Your task to perform on an android device: Open maps Image 0: 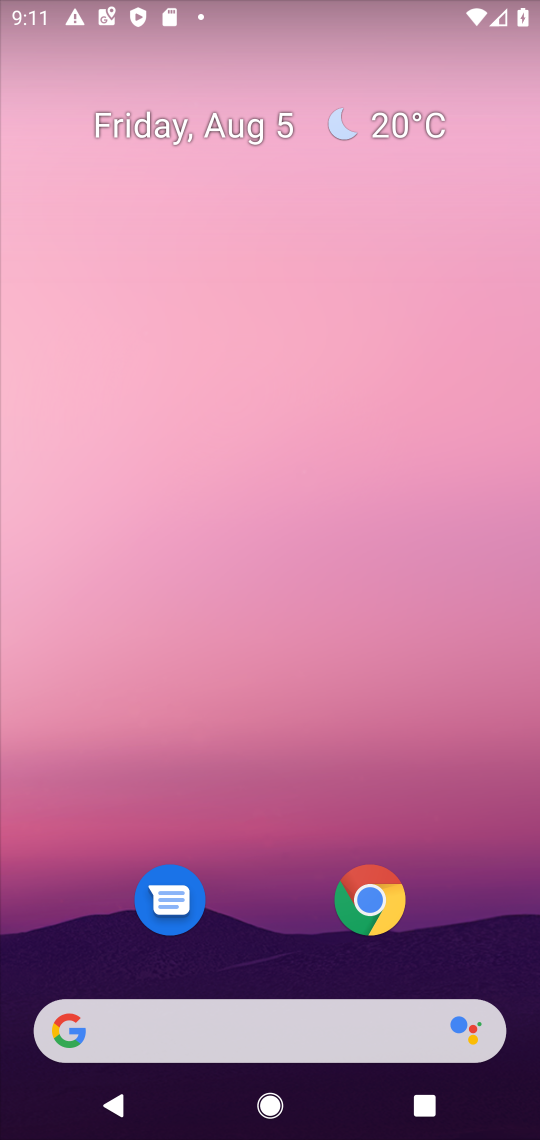
Step 0: drag from (293, 850) to (399, 4)
Your task to perform on an android device: Open maps Image 1: 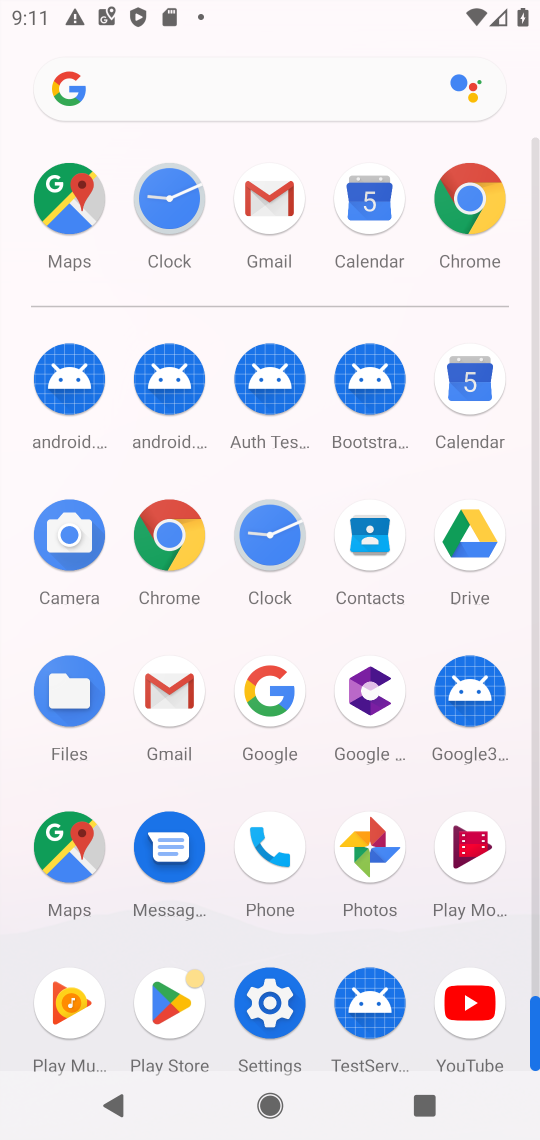
Step 1: click (39, 237)
Your task to perform on an android device: Open maps Image 2: 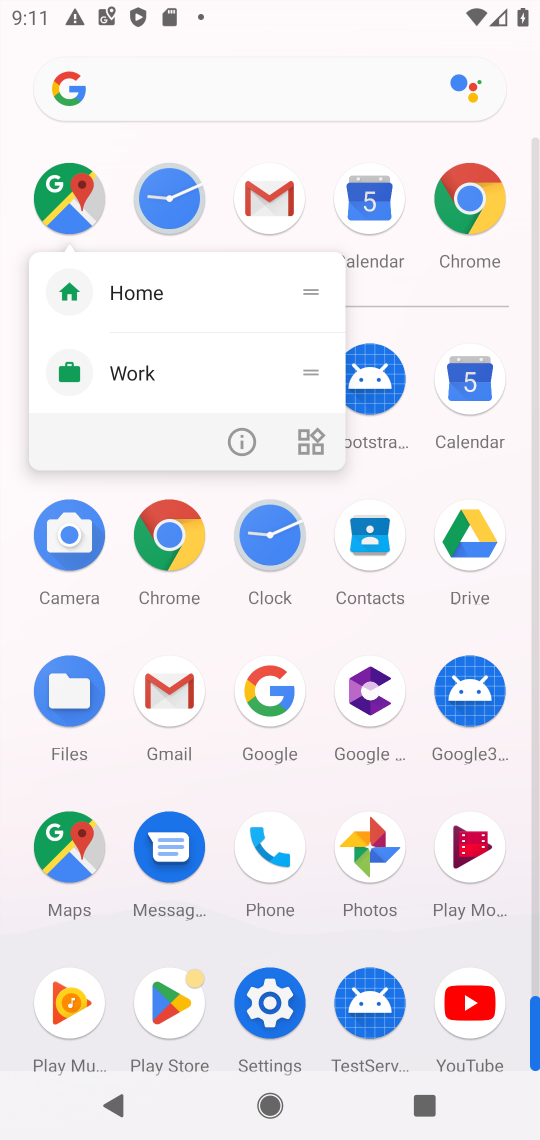
Step 2: click (54, 224)
Your task to perform on an android device: Open maps Image 3: 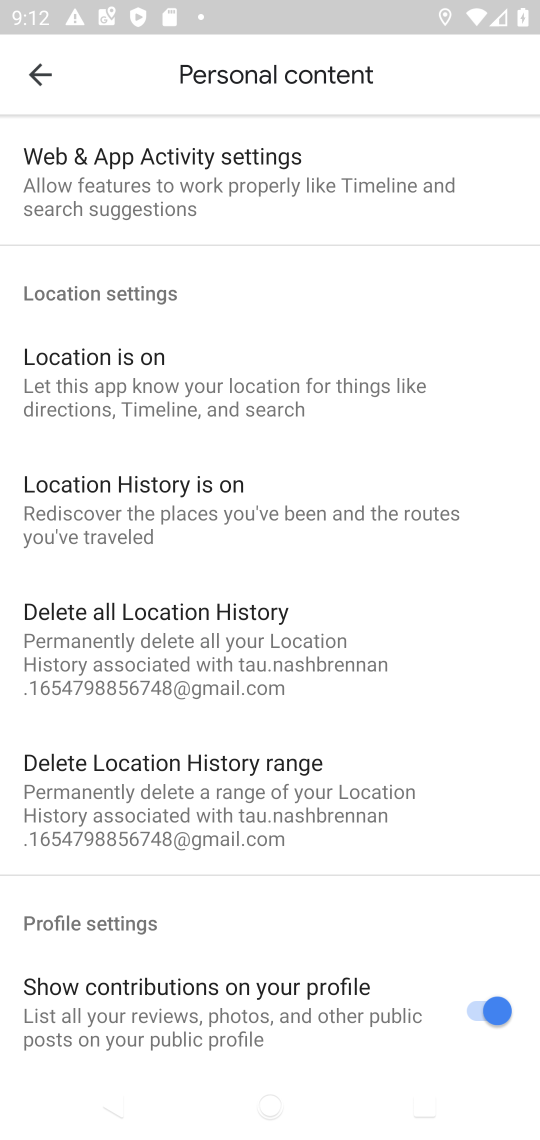
Step 3: task complete